Your task to perform on an android device: clear all cookies in the chrome app Image 0: 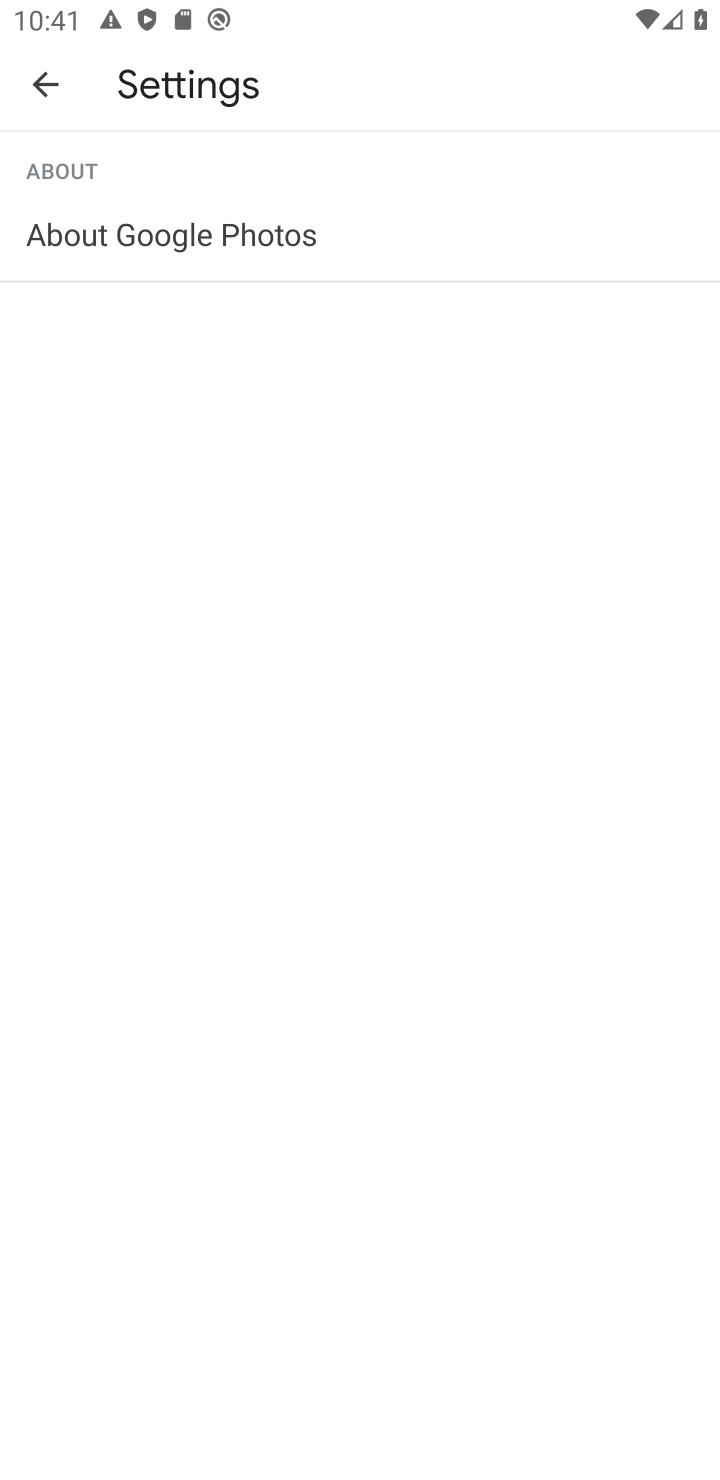
Step 0: task complete